Your task to perform on an android device: empty trash in the gmail app Image 0: 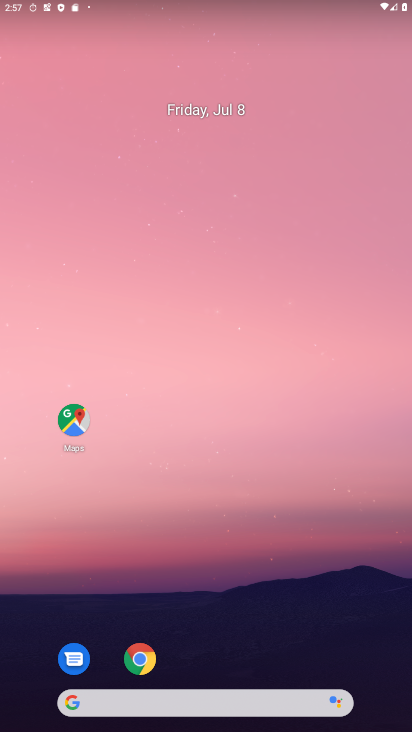
Step 0: drag from (232, 568) to (218, 12)
Your task to perform on an android device: empty trash in the gmail app Image 1: 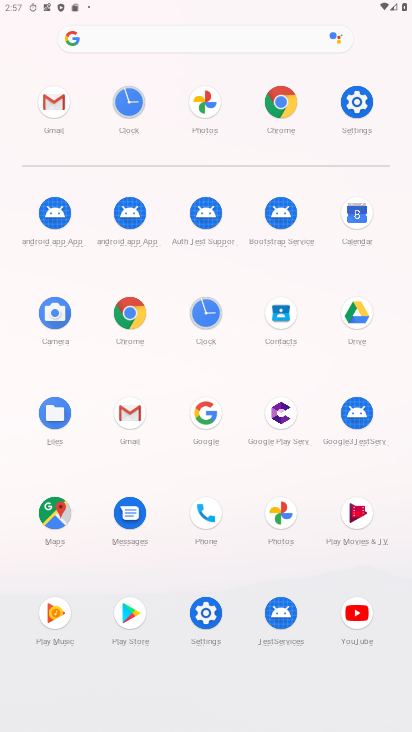
Step 1: click (133, 408)
Your task to perform on an android device: empty trash in the gmail app Image 2: 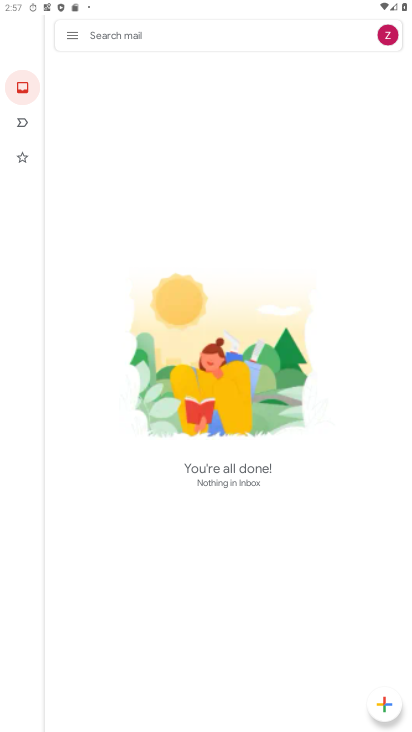
Step 2: click (73, 38)
Your task to perform on an android device: empty trash in the gmail app Image 3: 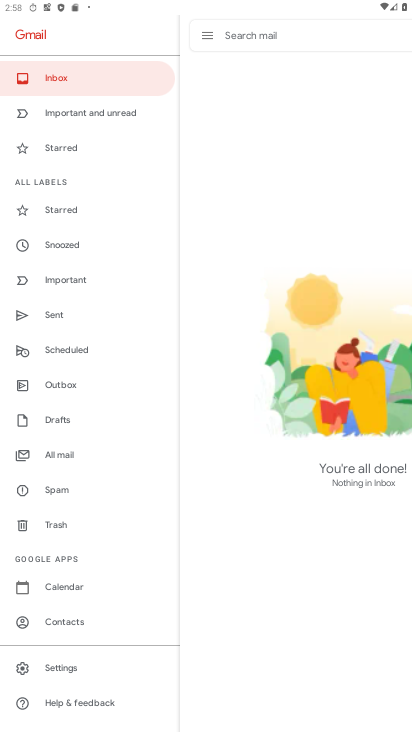
Step 3: click (25, 534)
Your task to perform on an android device: empty trash in the gmail app Image 4: 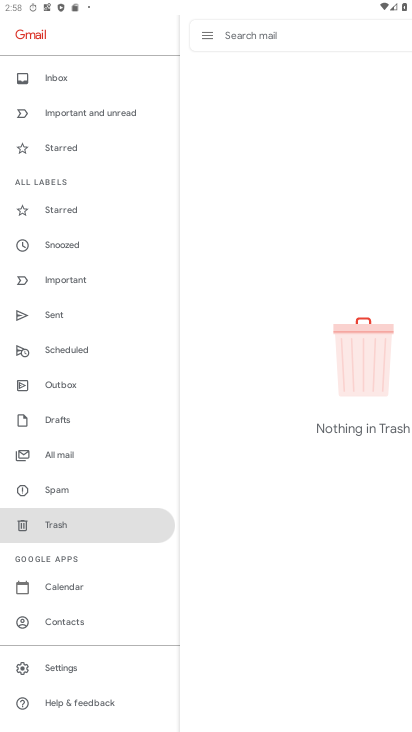
Step 4: task complete